Your task to perform on an android device: turn on notifications settings in the gmail app Image 0: 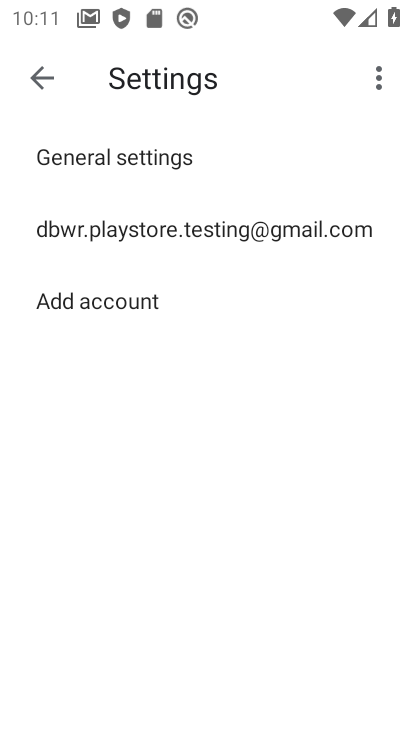
Step 0: press home button
Your task to perform on an android device: turn on notifications settings in the gmail app Image 1: 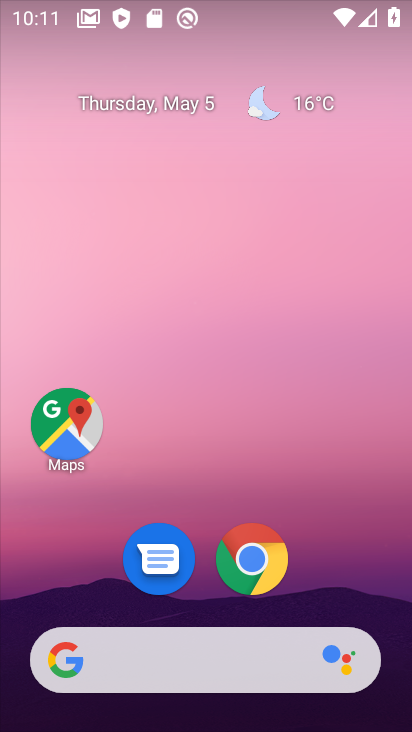
Step 1: drag from (324, 578) to (271, 167)
Your task to perform on an android device: turn on notifications settings in the gmail app Image 2: 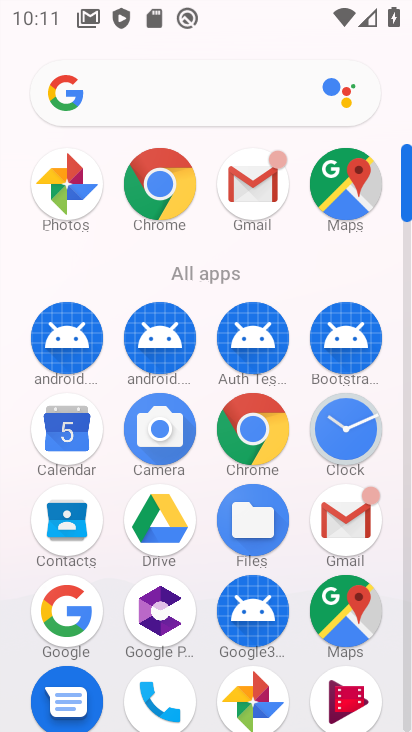
Step 2: click (258, 195)
Your task to perform on an android device: turn on notifications settings in the gmail app Image 3: 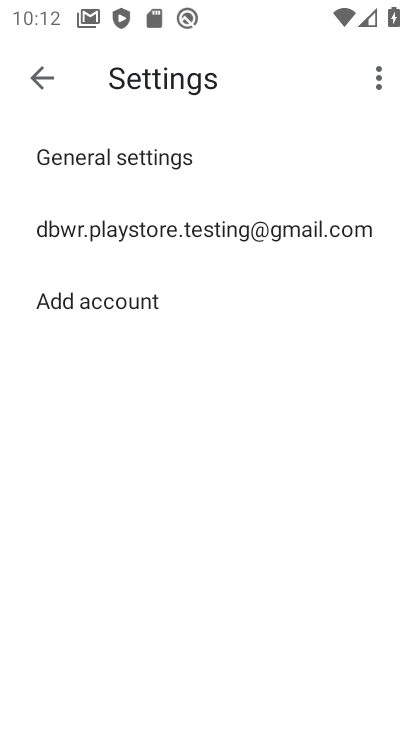
Step 3: click (223, 243)
Your task to perform on an android device: turn on notifications settings in the gmail app Image 4: 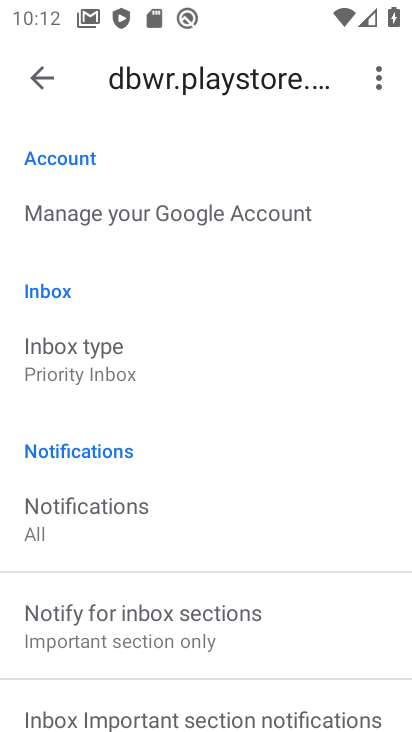
Step 4: drag from (45, 556) to (196, 284)
Your task to perform on an android device: turn on notifications settings in the gmail app Image 5: 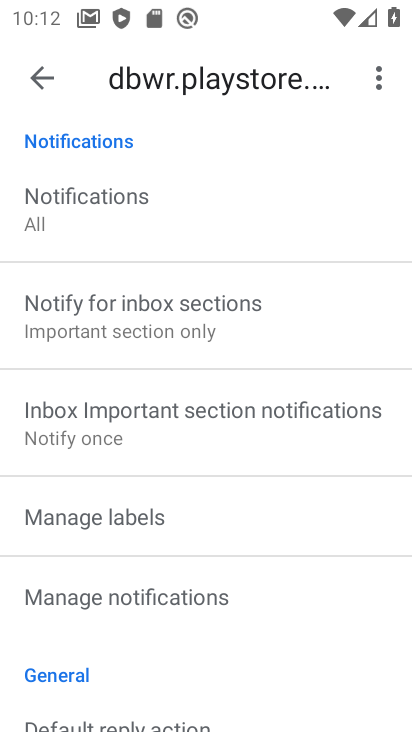
Step 5: click (220, 588)
Your task to perform on an android device: turn on notifications settings in the gmail app Image 6: 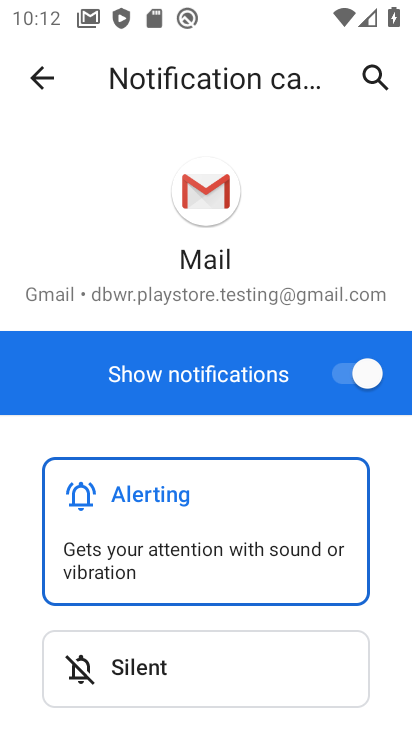
Step 6: drag from (401, 642) to (231, 127)
Your task to perform on an android device: turn on notifications settings in the gmail app Image 7: 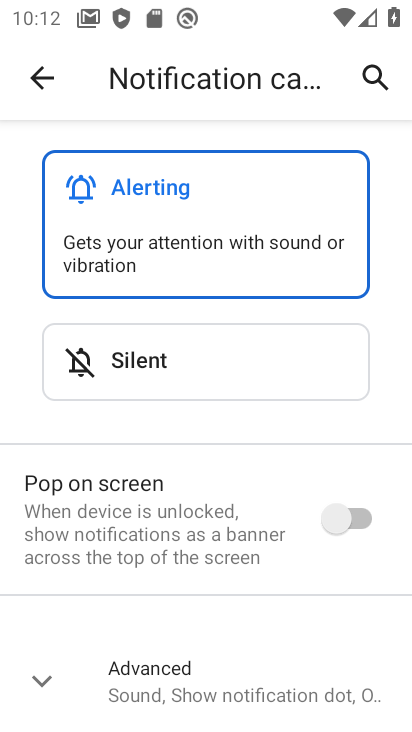
Step 7: click (358, 515)
Your task to perform on an android device: turn on notifications settings in the gmail app Image 8: 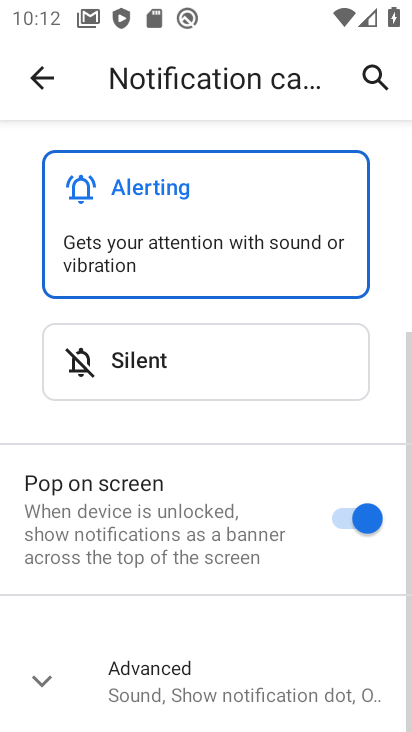
Step 8: task complete